Your task to perform on an android device: see tabs open on other devices in the chrome app Image 0: 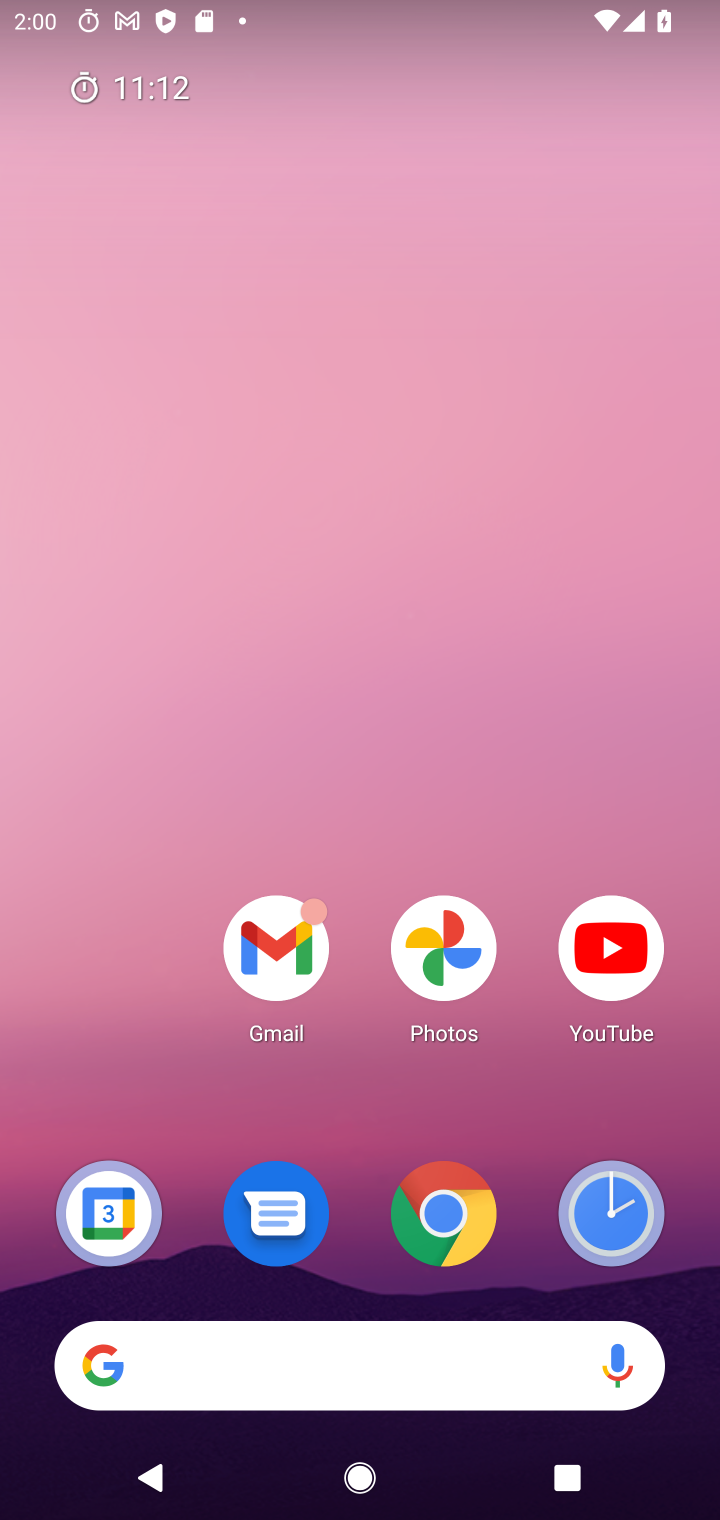
Step 0: drag from (281, 891) to (348, 11)
Your task to perform on an android device: see tabs open on other devices in the chrome app Image 1: 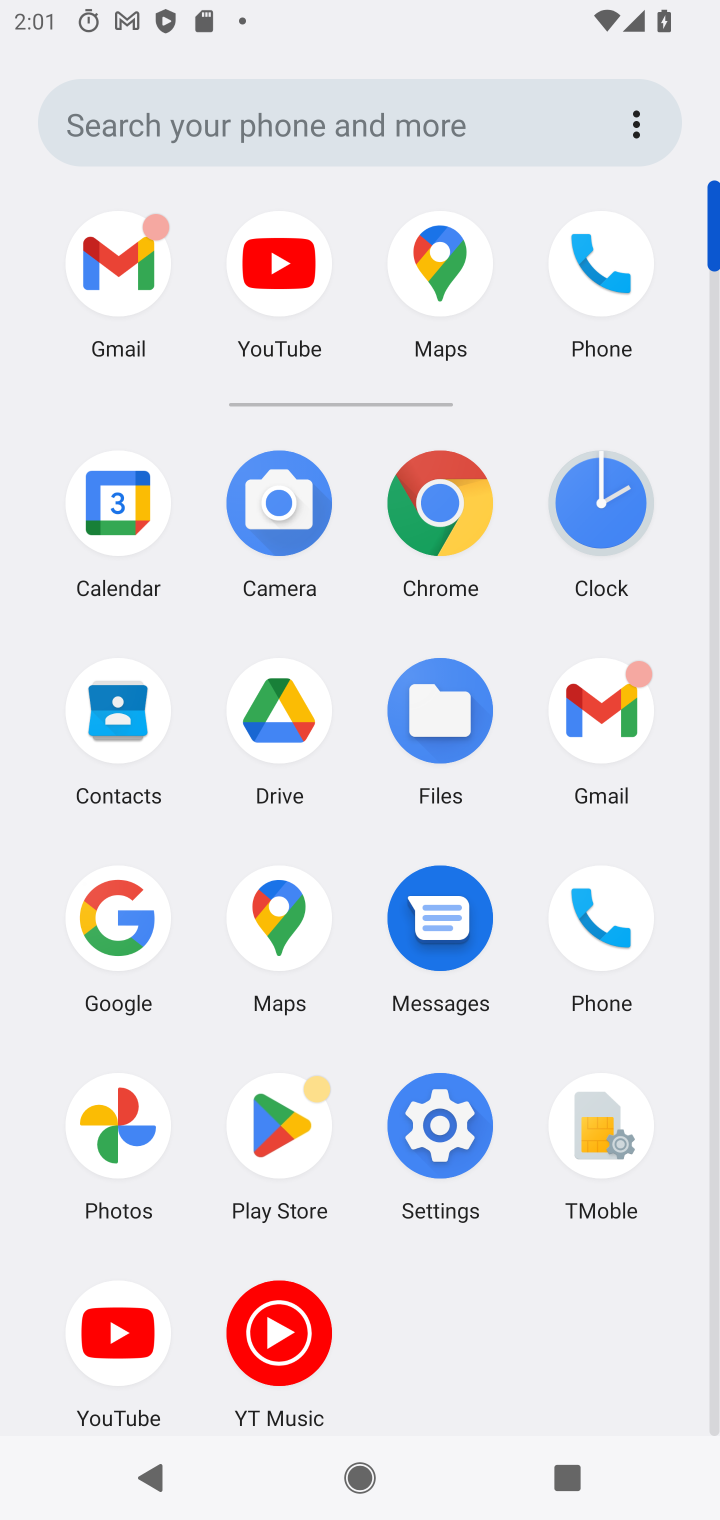
Step 1: click (449, 501)
Your task to perform on an android device: see tabs open on other devices in the chrome app Image 2: 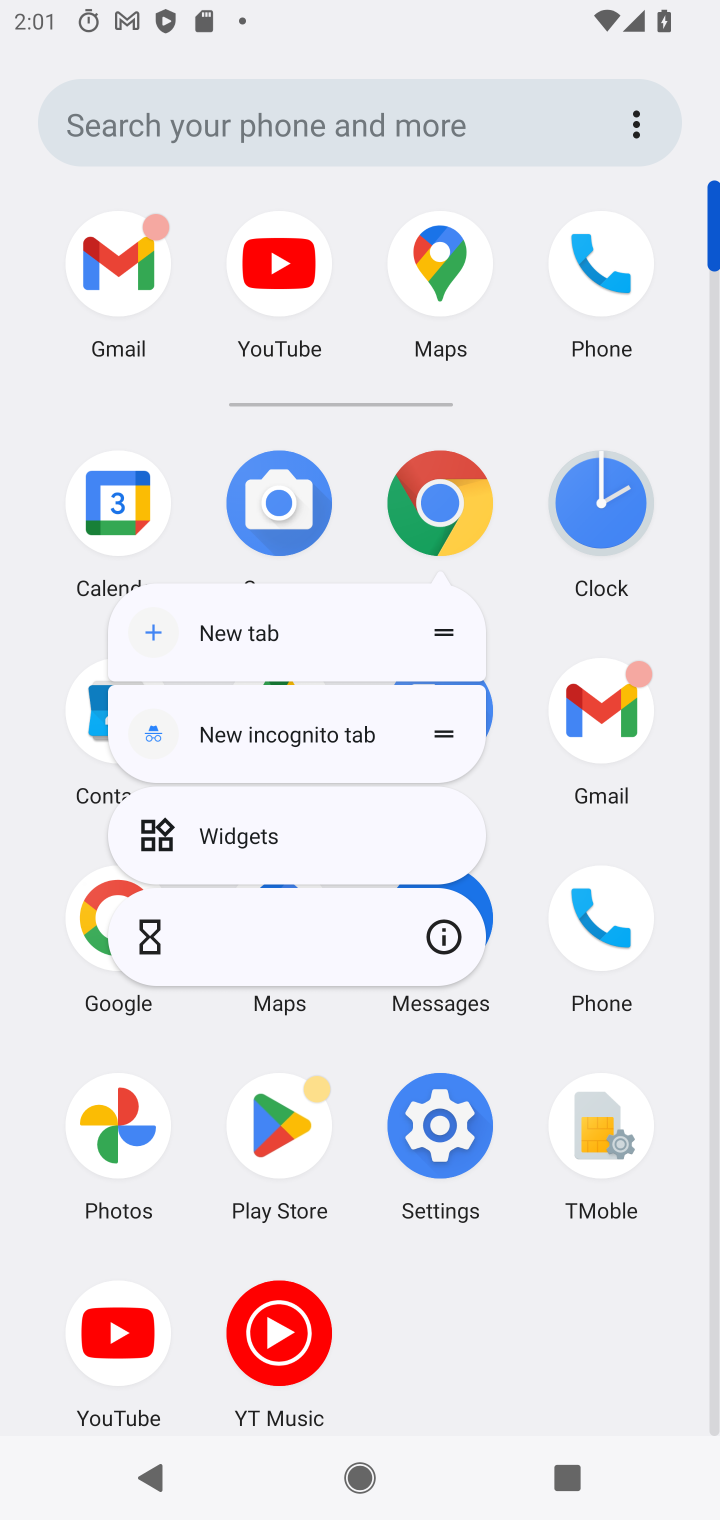
Step 2: click (449, 501)
Your task to perform on an android device: see tabs open on other devices in the chrome app Image 3: 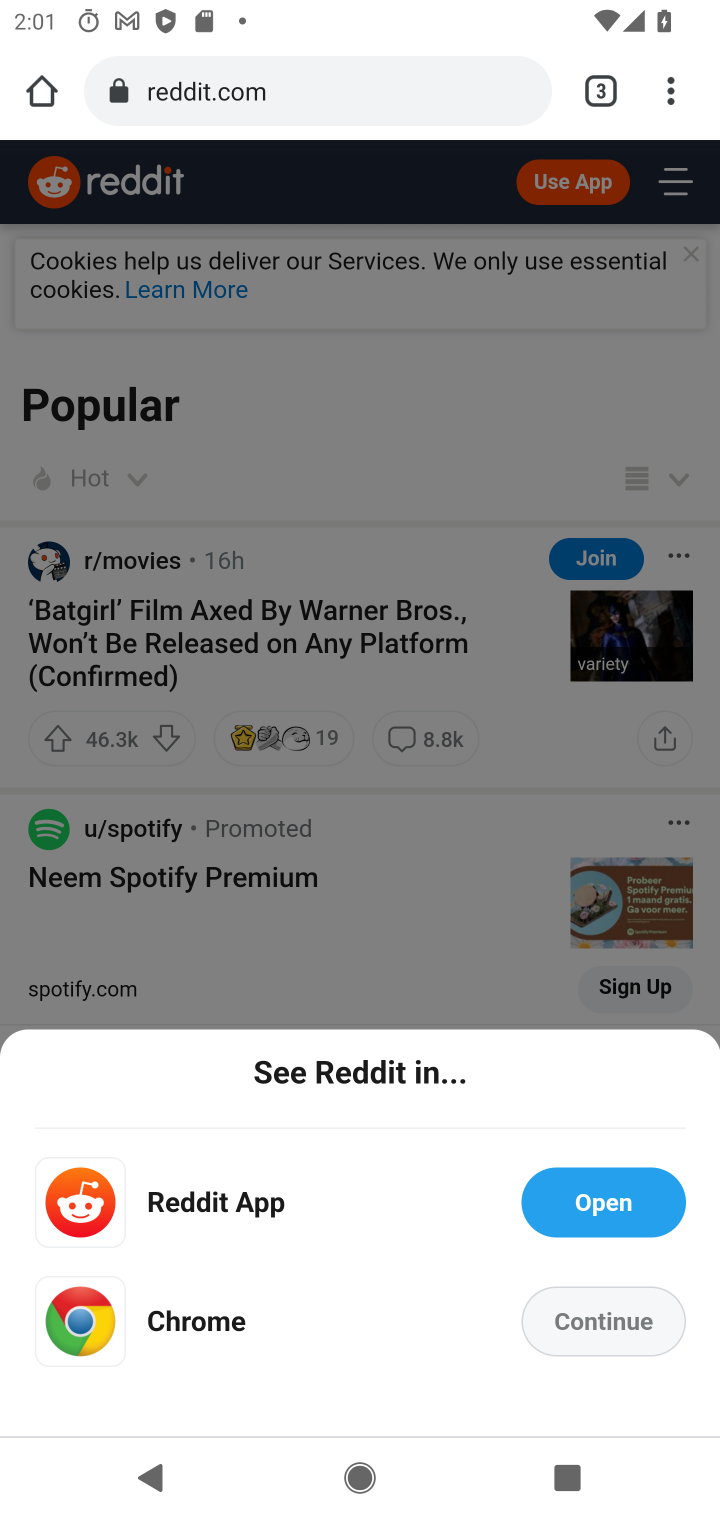
Step 3: drag from (666, 70) to (374, 711)
Your task to perform on an android device: see tabs open on other devices in the chrome app Image 4: 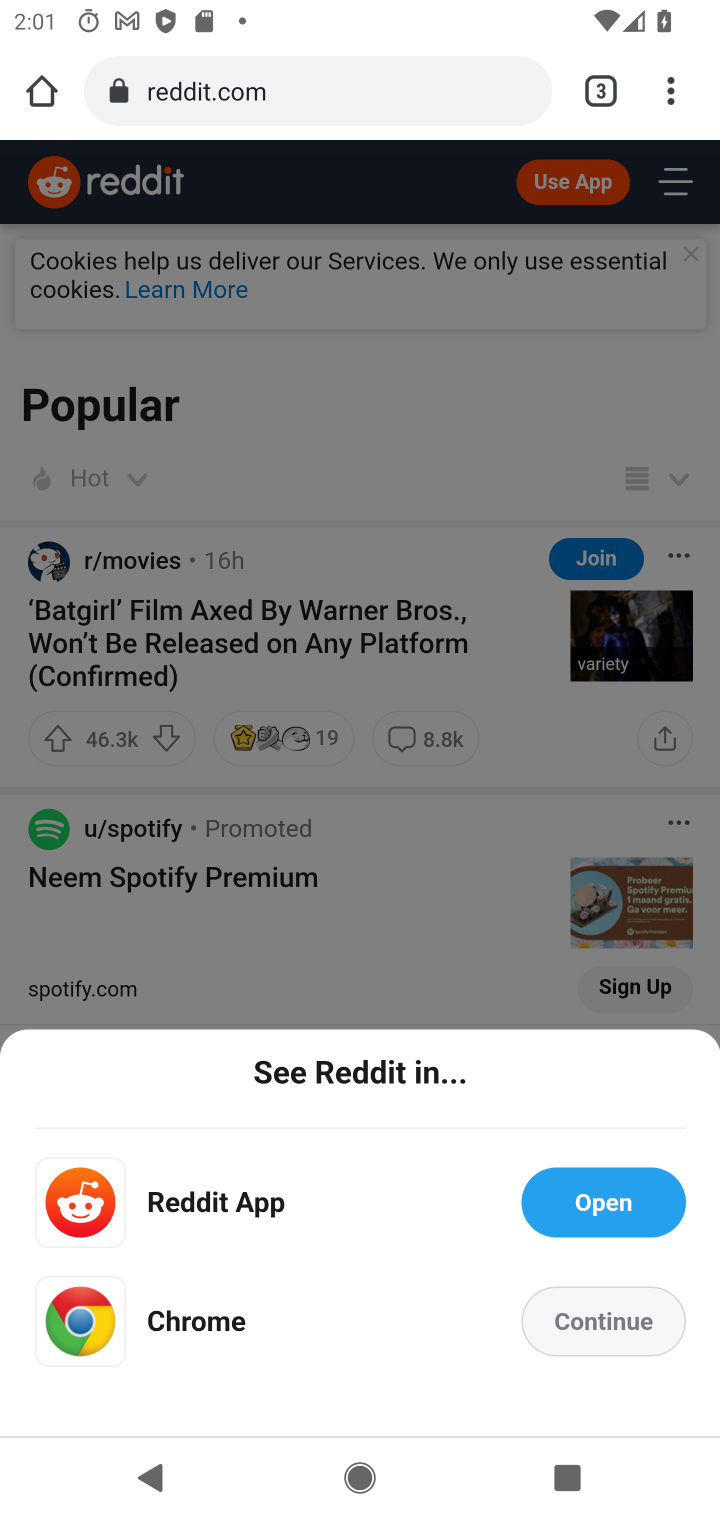
Step 4: click (376, 700)
Your task to perform on an android device: see tabs open on other devices in the chrome app Image 5: 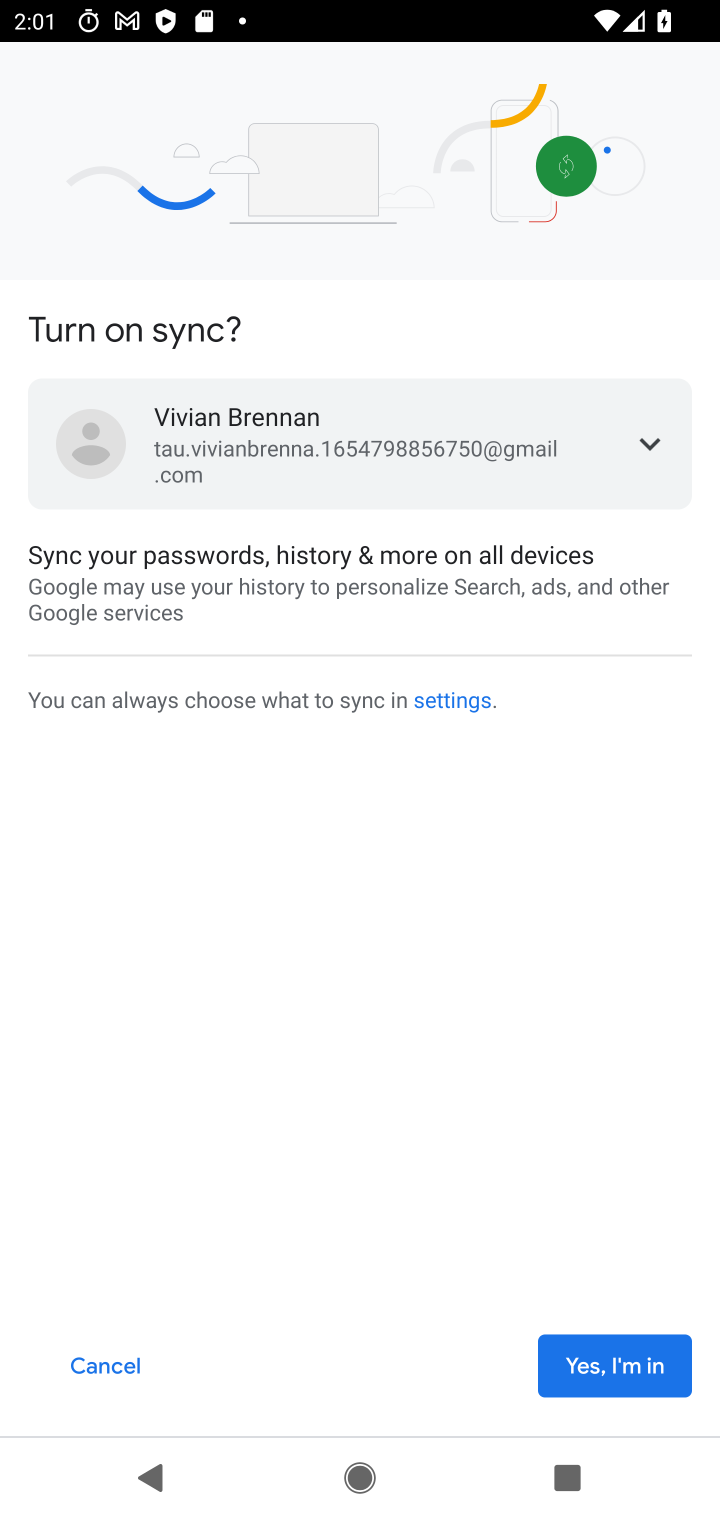
Step 5: task complete